Your task to perform on an android device: Open the phone app and click the voicemail tab. Image 0: 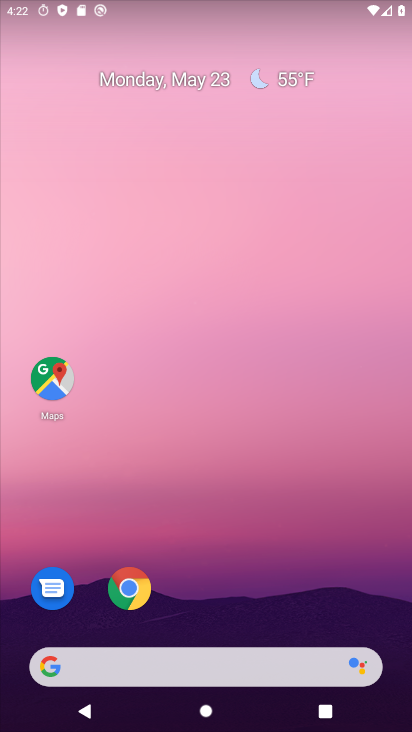
Step 0: drag from (250, 546) to (260, 114)
Your task to perform on an android device: Open the phone app and click the voicemail tab. Image 1: 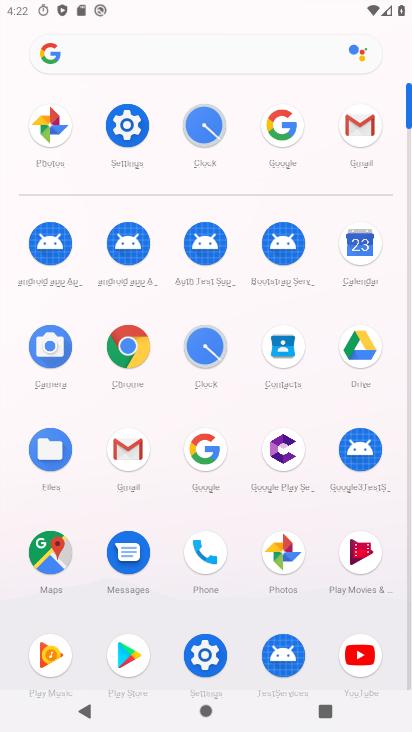
Step 1: click (196, 554)
Your task to perform on an android device: Open the phone app and click the voicemail tab. Image 2: 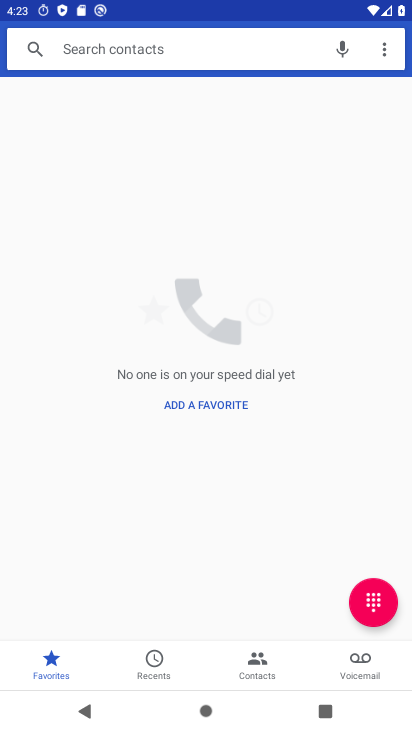
Step 2: click (357, 664)
Your task to perform on an android device: Open the phone app and click the voicemail tab. Image 3: 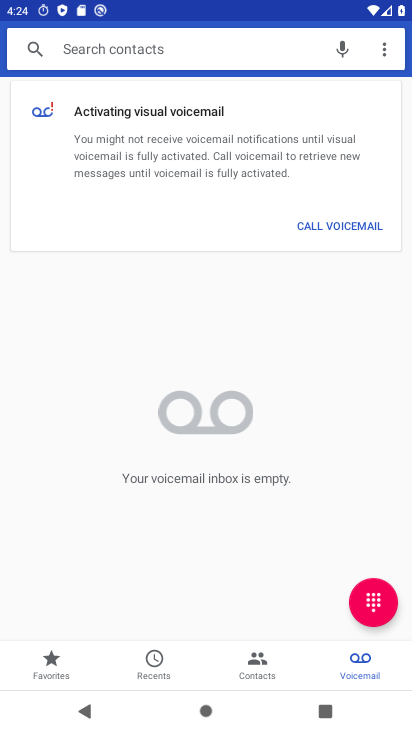
Step 3: task complete